Your task to perform on an android device: install app "Google Keep" Image 0: 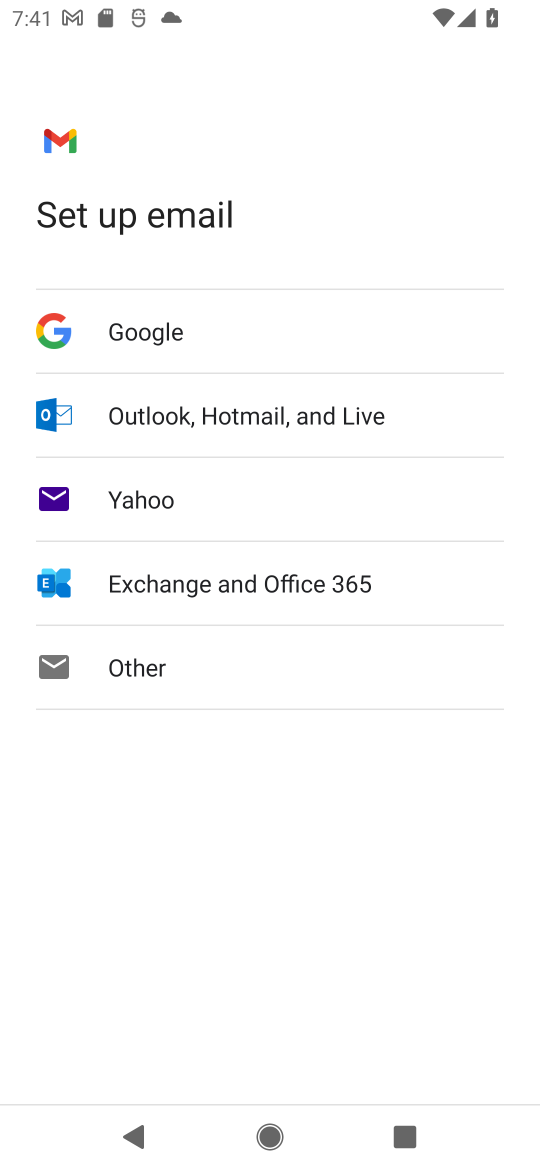
Step 0: press home button
Your task to perform on an android device: install app "Google Keep" Image 1: 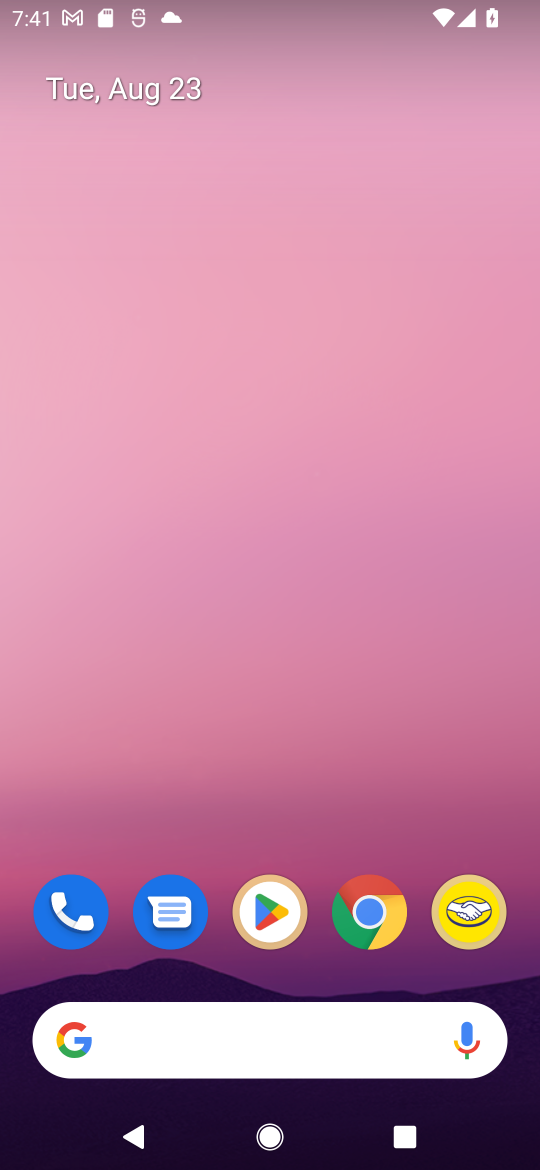
Step 1: click (263, 925)
Your task to perform on an android device: install app "Google Keep" Image 2: 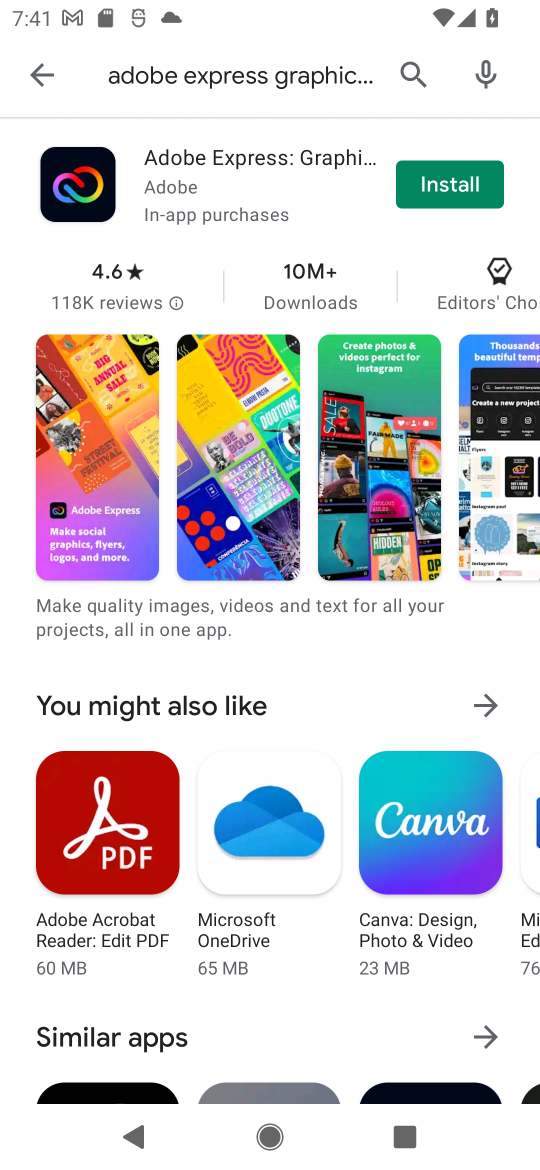
Step 2: click (402, 64)
Your task to perform on an android device: install app "Google Keep" Image 3: 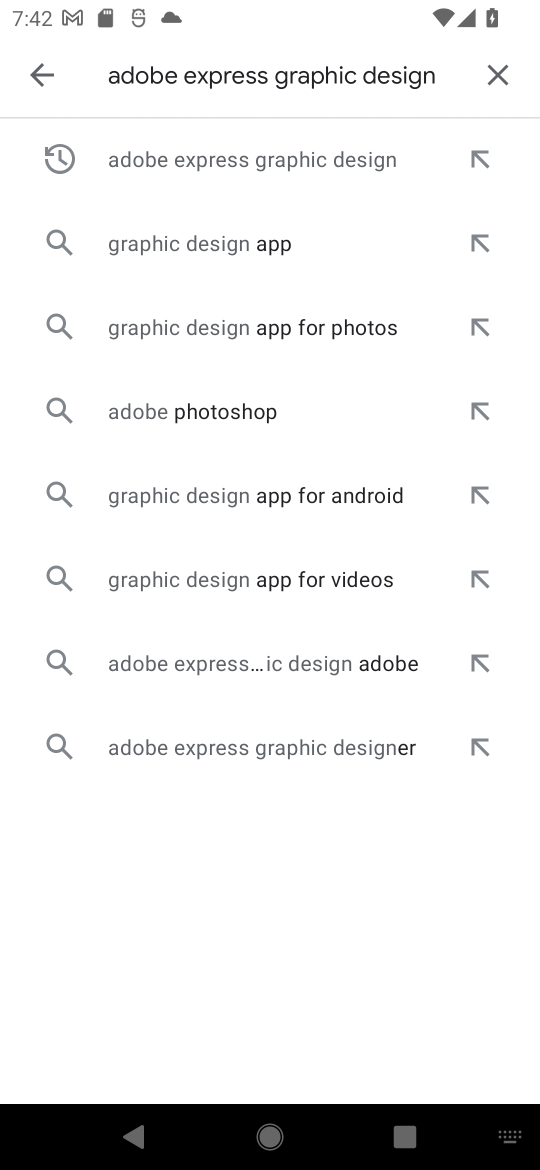
Step 3: click (495, 67)
Your task to perform on an android device: install app "Google Keep" Image 4: 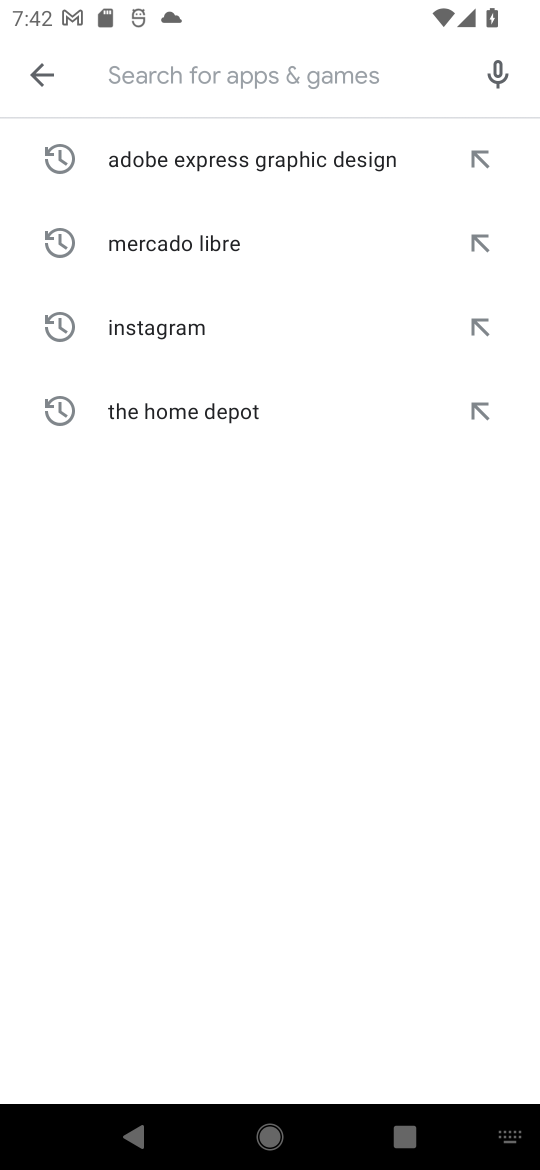
Step 4: type "Google Keep"
Your task to perform on an android device: install app "Google Keep" Image 5: 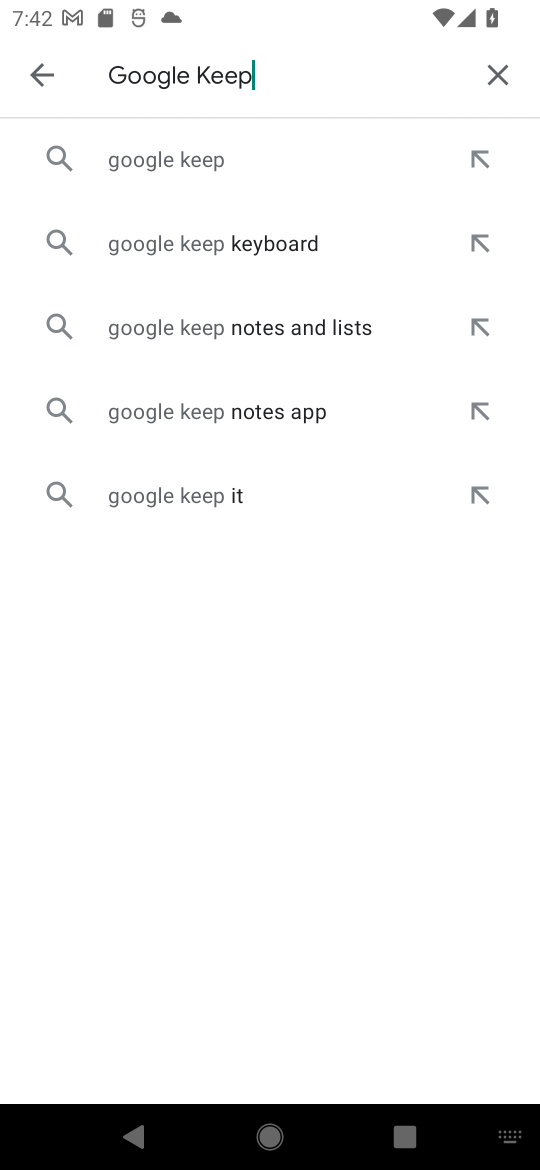
Step 5: click (193, 158)
Your task to perform on an android device: install app "Google Keep" Image 6: 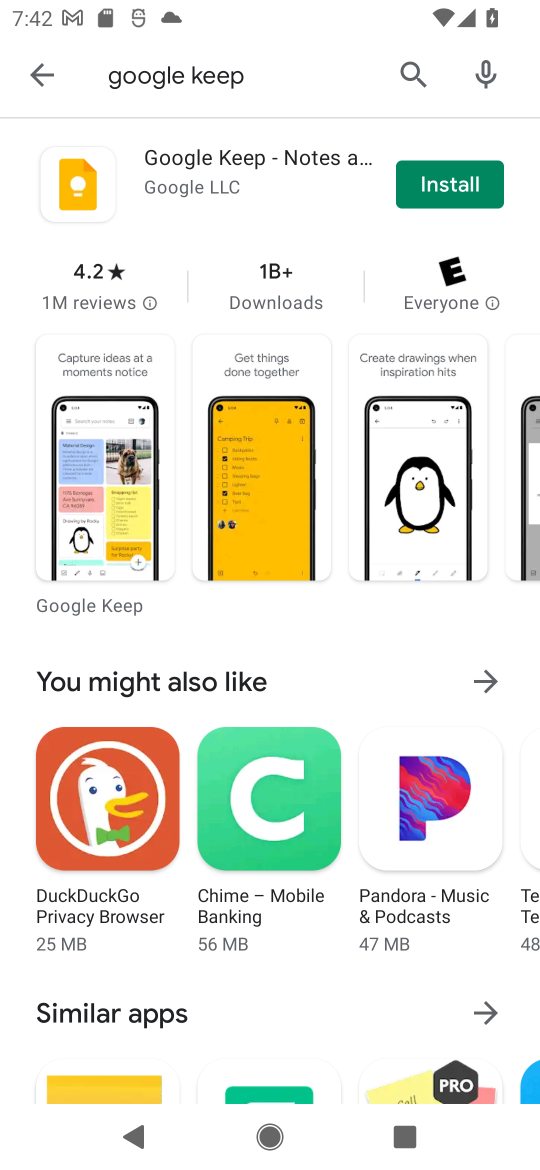
Step 6: click (446, 189)
Your task to perform on an android device: install app "Google Keep" Image 7: 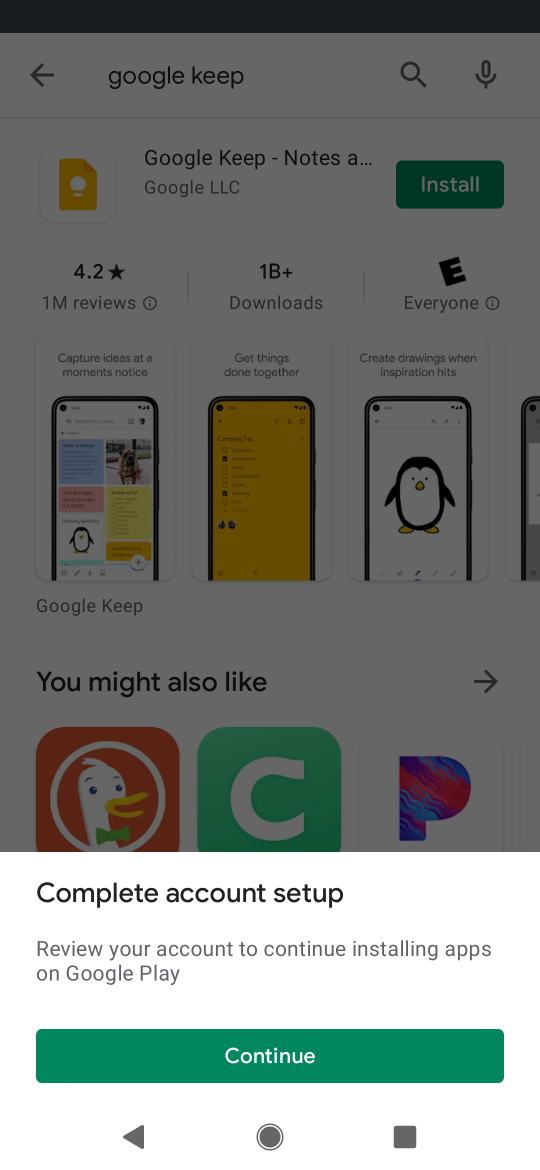
Step 7: click (268, 1056)
Your task to perform on an android device: install app "Google Keep" Image 8: 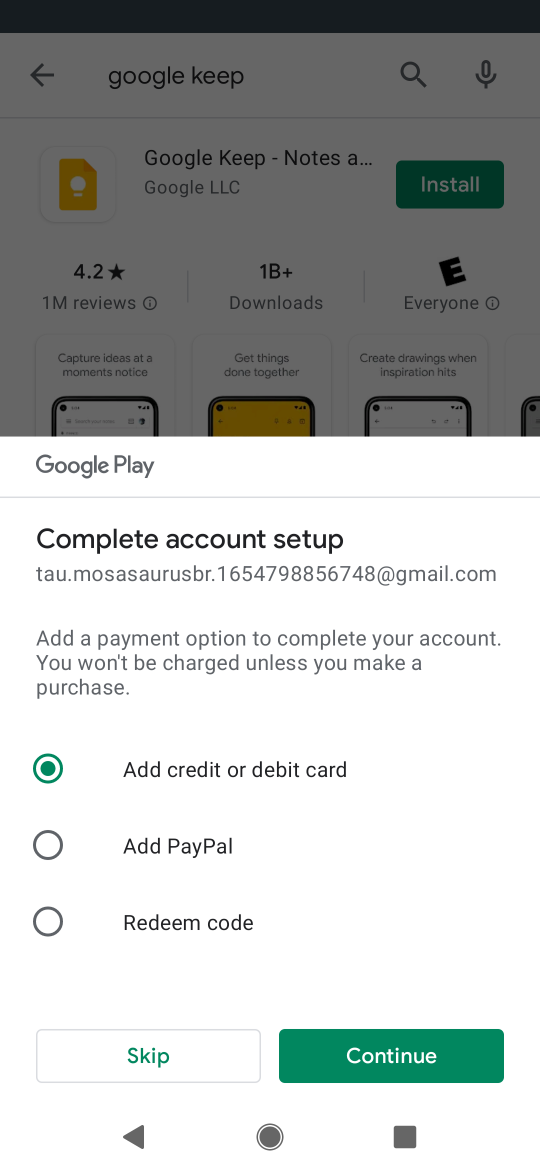
Step 8: click (138, 1044)
Your task to perform on an android device: install app "Google Keep" Image 9: 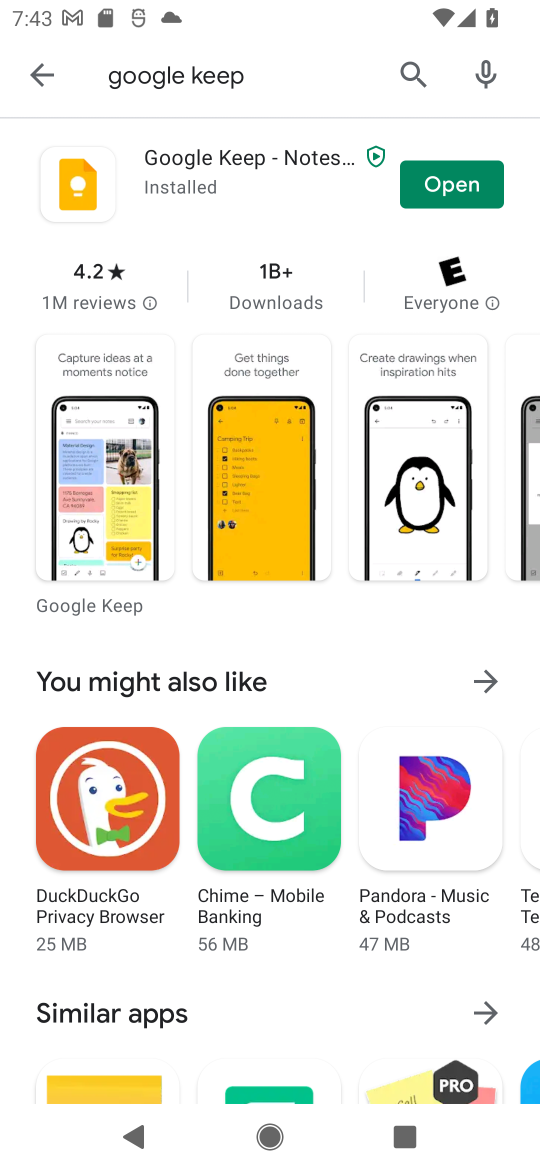
Step 9: task complete